Your task to perform on an android device: snooze an email in the gmail app Image 0: 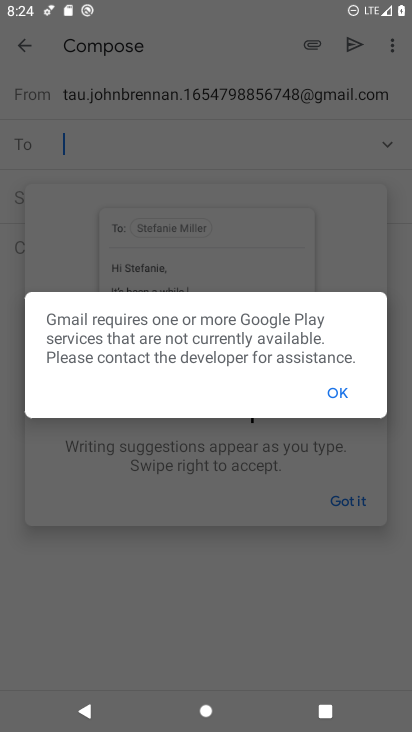
Step 0: press home button
Your task to perform on an android device: snooze an email in the gmail app Image 1: 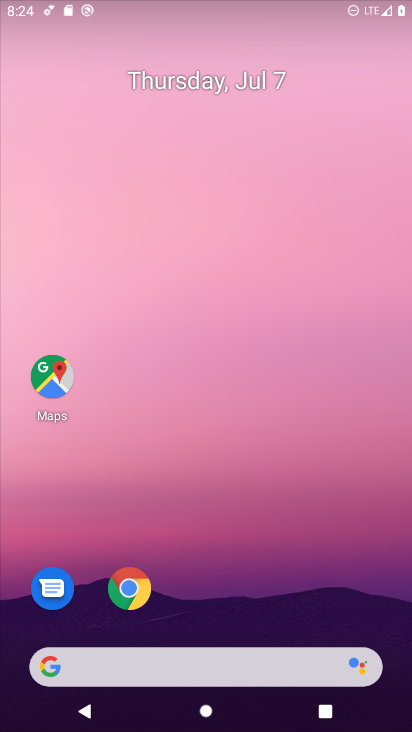
Step 1: drag from (208, 580) to (196, 40)
Your task to perform on an android device: snooze an email in the gmail app Image 2: 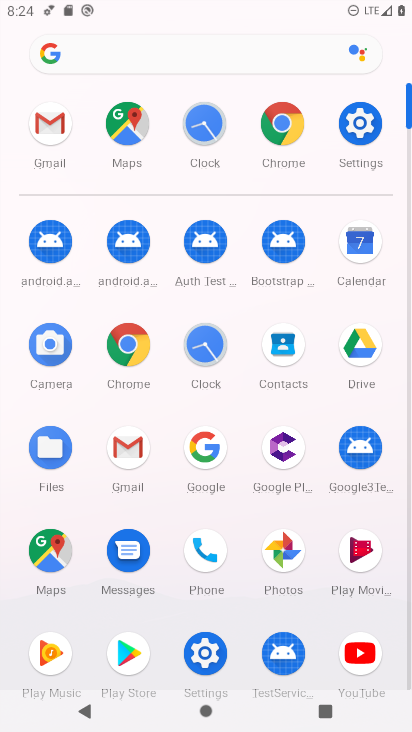
Step 2: click (126, 438)
Your task to perform on an android device: snooze an email in the gmail app Image 3: 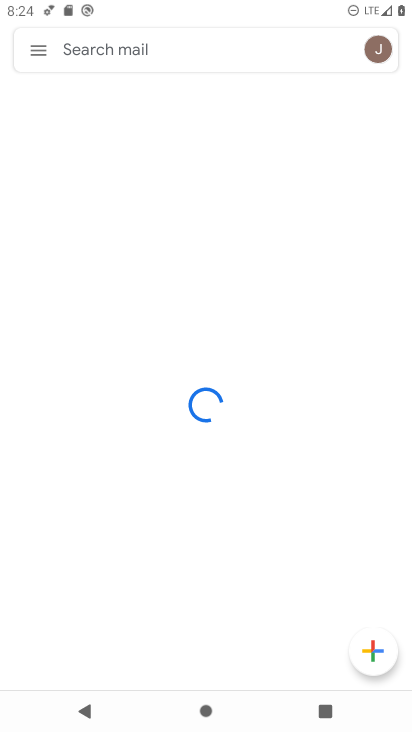
Step 3: click (35, 45)
Your task to perform on an android device: snooze an email in the gmail app Image 4: 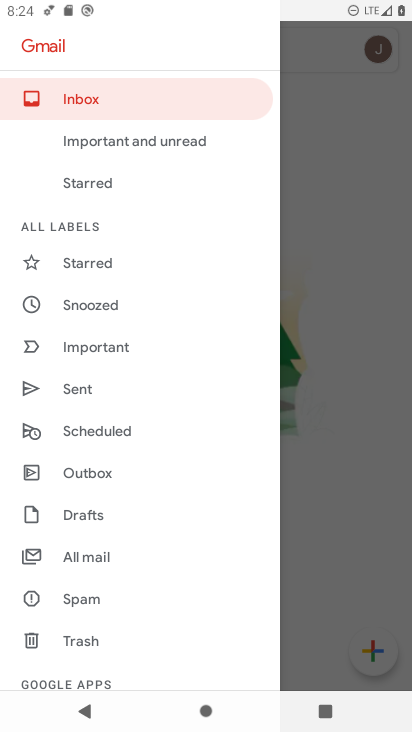
Step 4: click (115, 310)
Your task to perform on an android device: snooze an email in the gmail app Image 5: 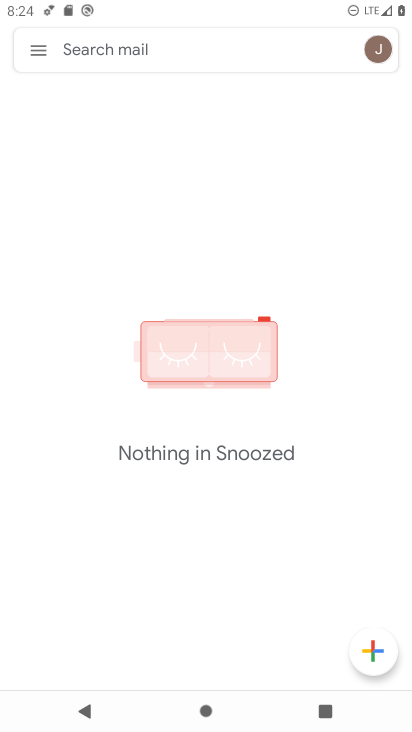
Step 5: task complete